Your task to perform on an android device: open app "DoorDash - Dasher" Image 0: 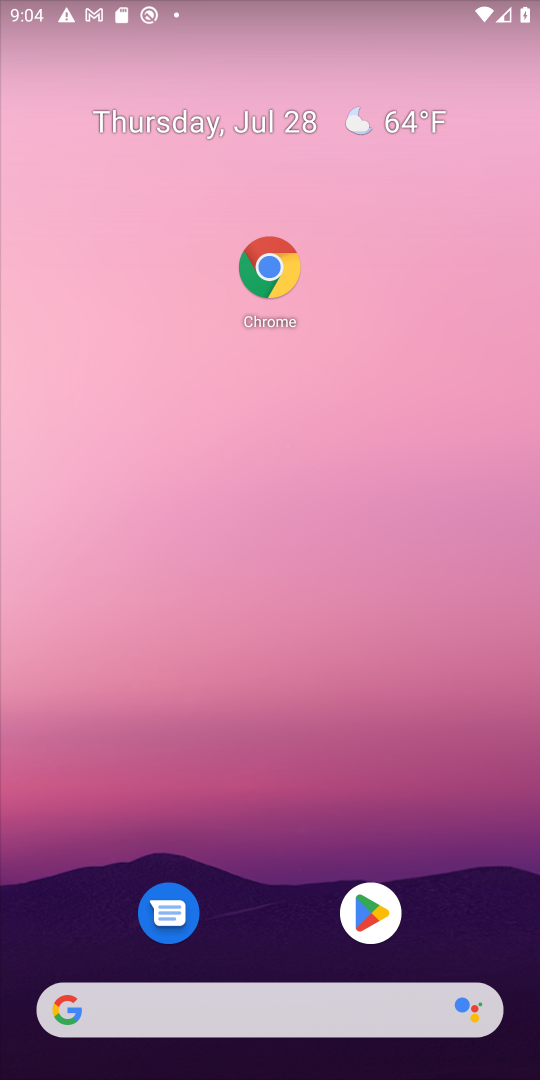
Step 0: click (328, 890)
Your task to perform on an android device: open app "DoorDash - Dasher" Image 1: 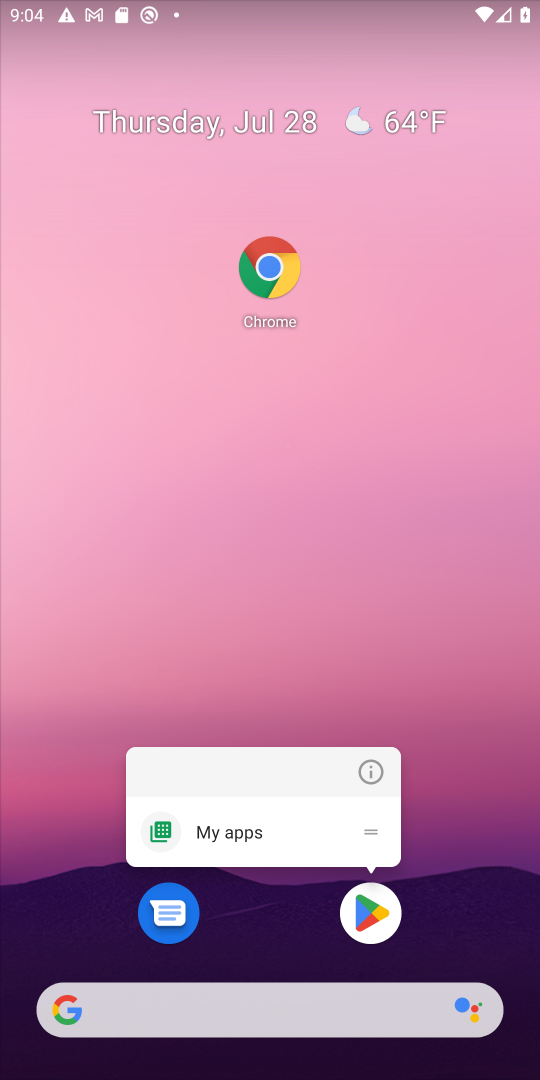
Step 1: click (371, 912)
Your task to perform on an android device: open app "DoorDash - Dasher" Image 2: 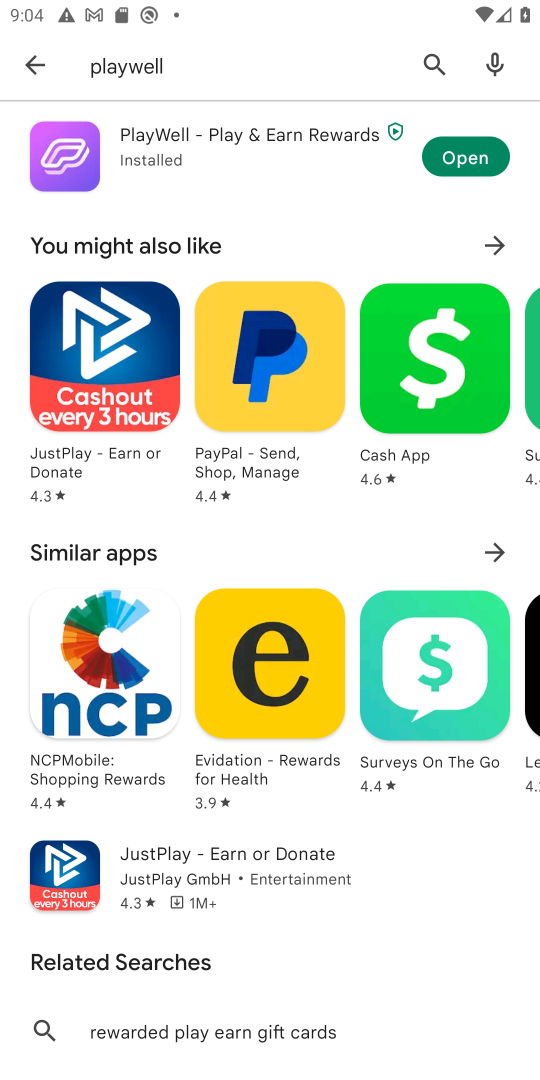
Step 2: click (430, 69)
Your task to perform on an android device: open app "DoorDash - Dasher" Image 3: 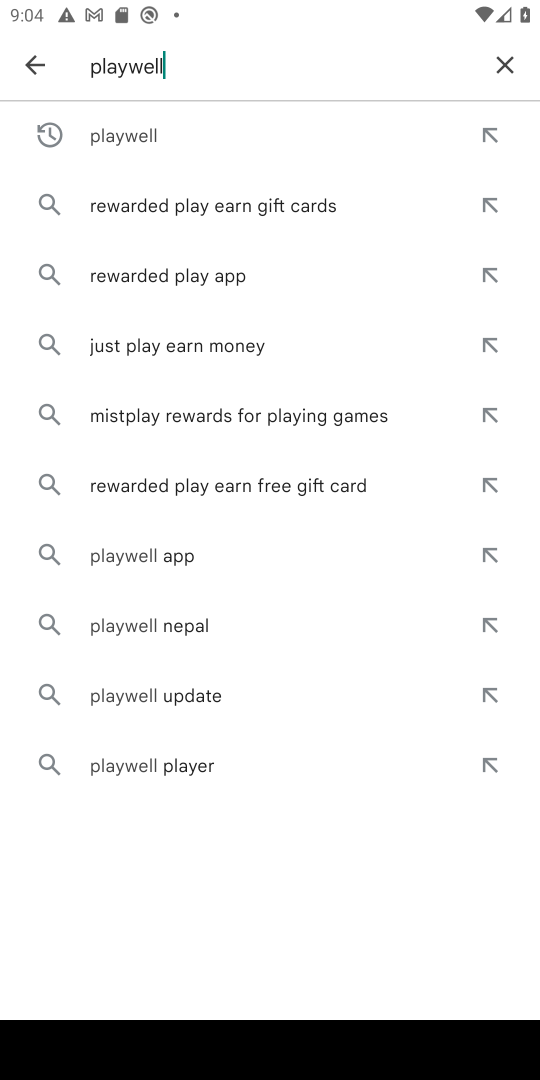
Step 3: click (498, 64)
Your task to perform on an android device: open app "DoorDash - Dasher" Image 4: 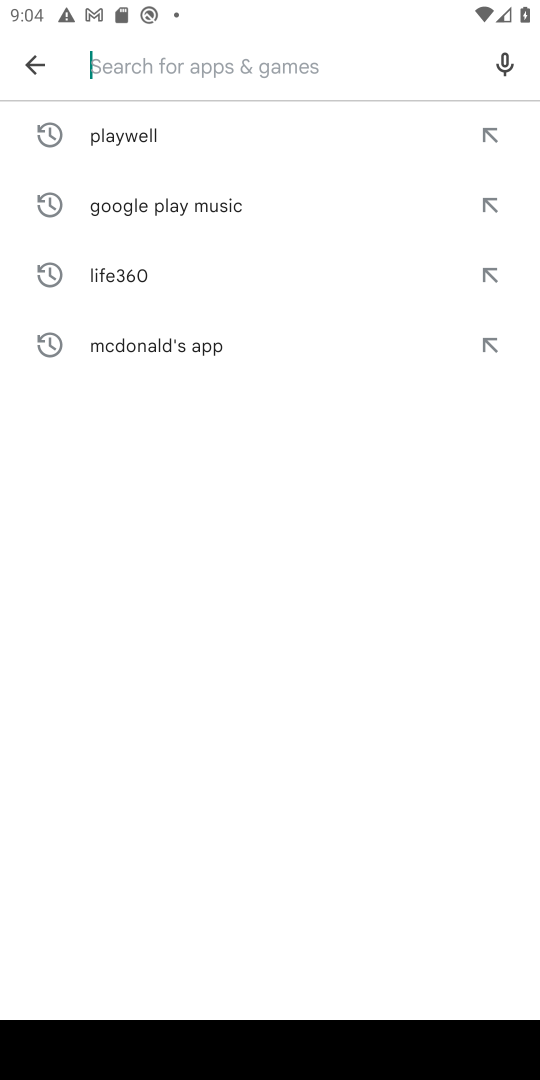
Step 4: type "door"
Your task to perform on an android device: open app "DoorDash - Dasher" Image 5: 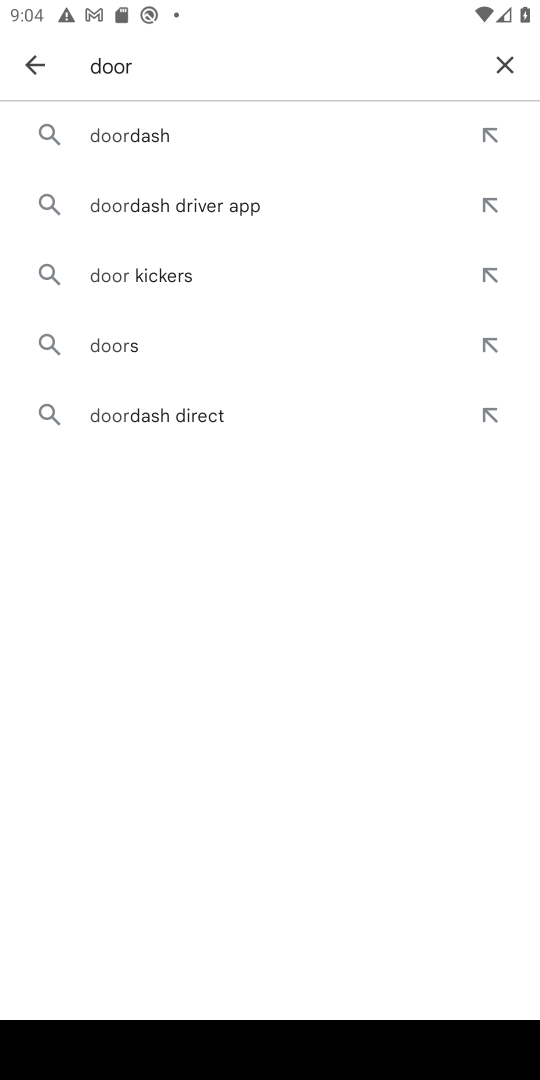
Step 5: click (174, 150)
Your task to perform on an android device: open app "DoorDash - Dasher" Image 6: 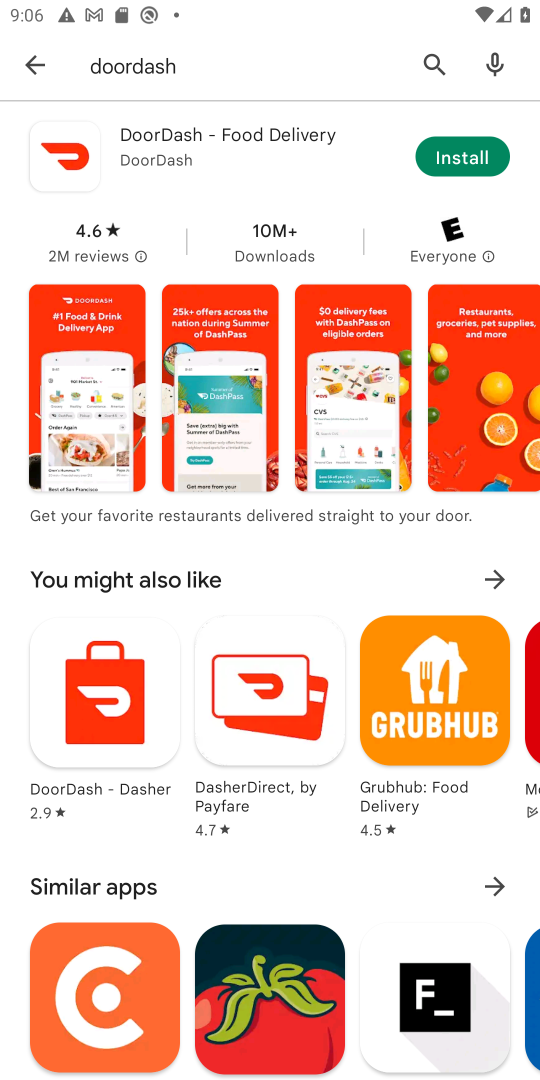
Step 6: task complete